Your task to perform on an android device: uninstall "Instagram" Image 0: 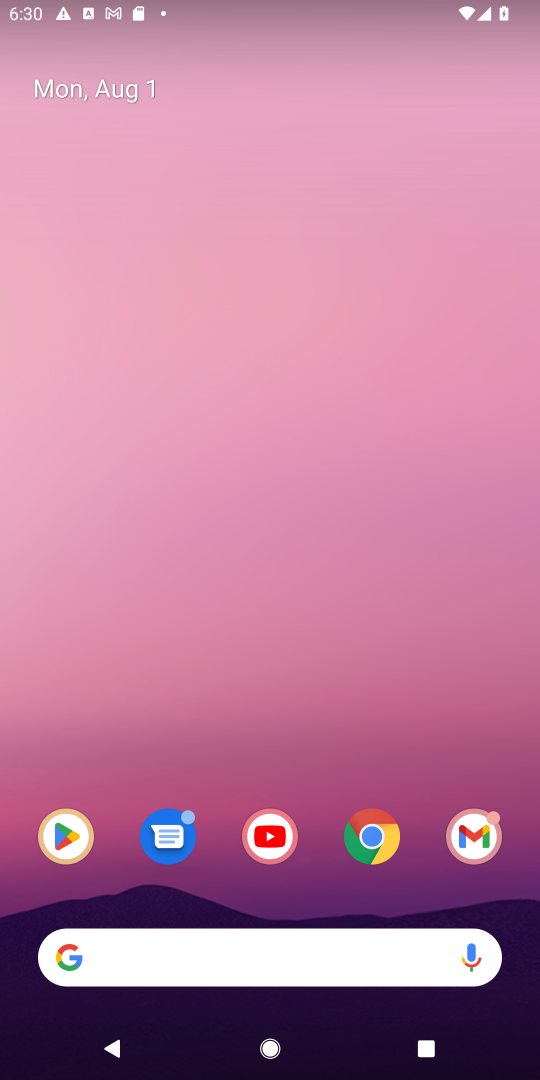
Step 0: press home button
Your task to perform on an android device: uninstall "Instagram" Image 1: 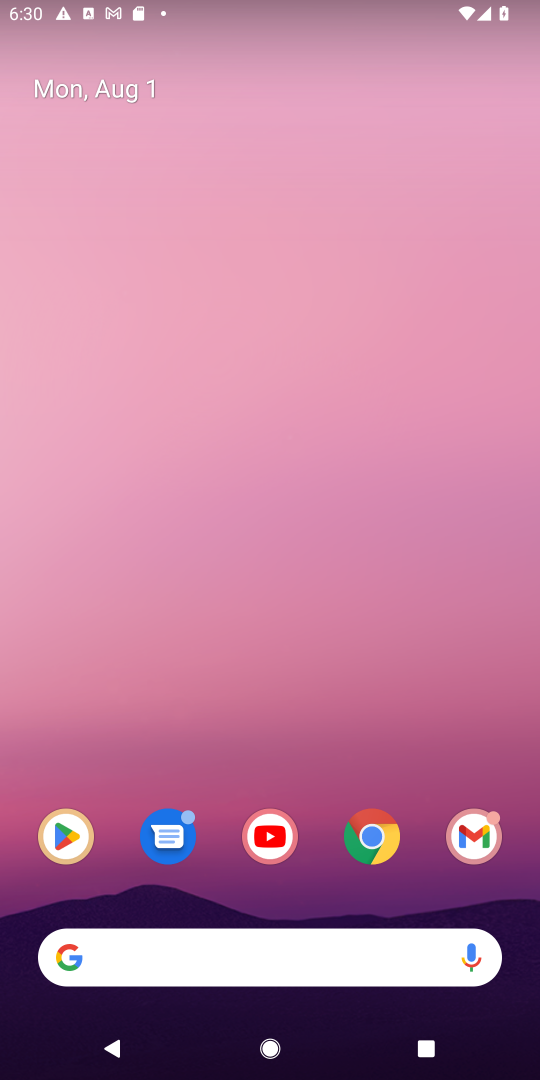
Step 1: click (60, 830)
Your task to perform on an android device: uninstall "Instagram" Image 2: 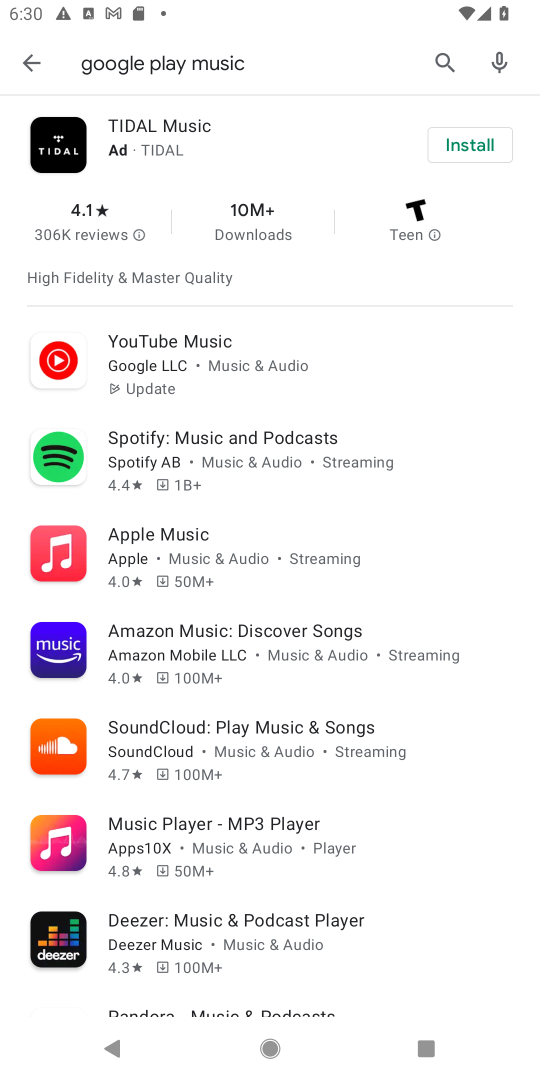
Step 2: click (443, 57)
Your task to perform on an android device: uninstall "Instagram" Image 3: 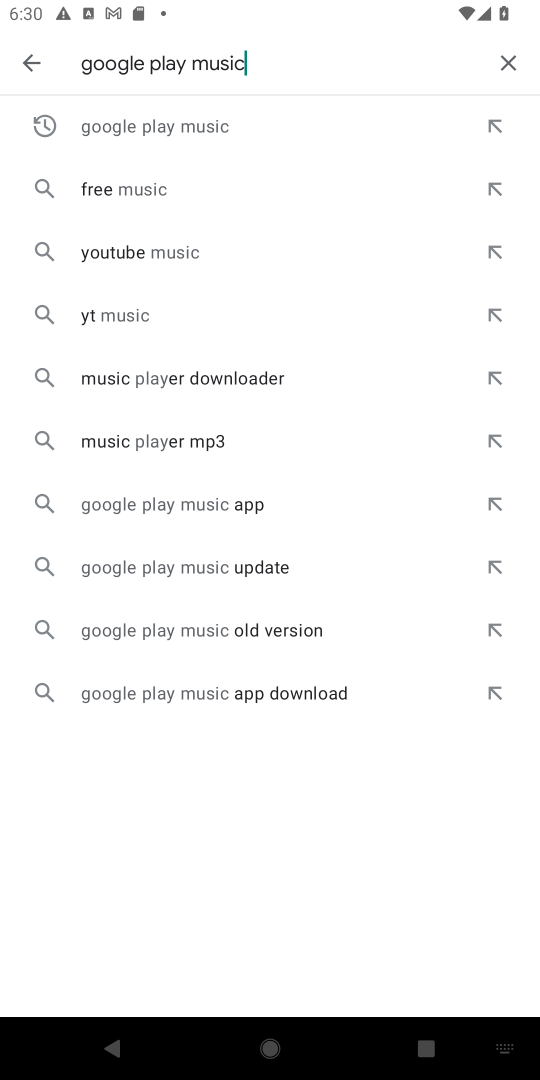
Step 3: click (516, 50)
Your task to perform on an android device: uninstall "Instagram" Image 4: 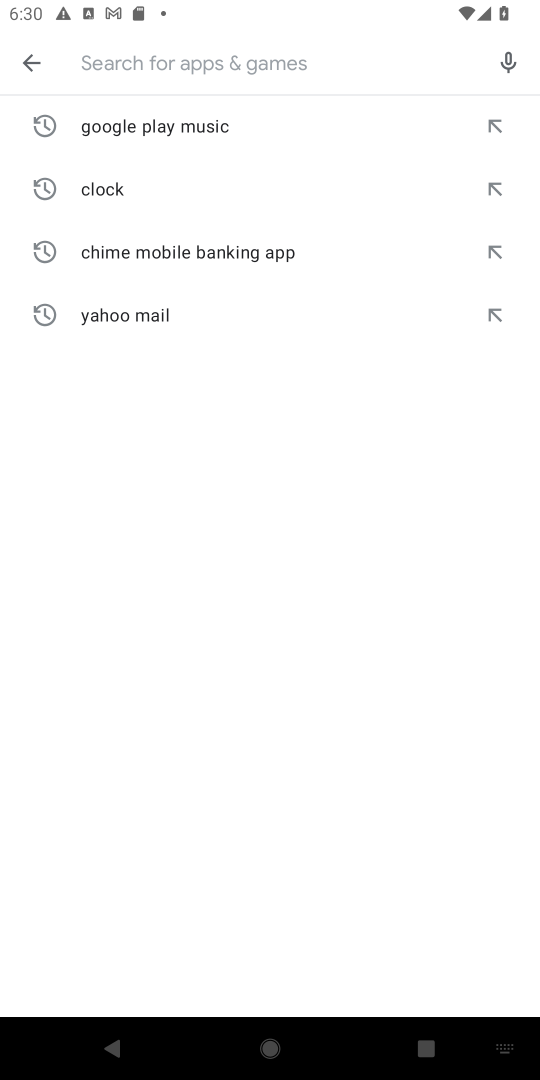
Step 4: type "Instagram"
Your task to perform on an android device: uninstall "Instagram" Image 5: 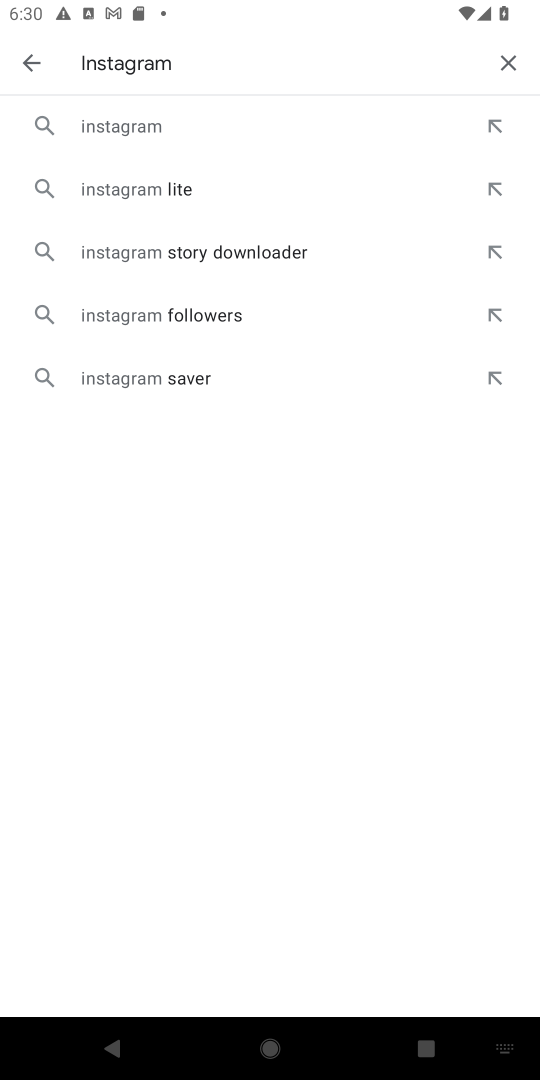
Step 5: click (139, 122)
Your task to perform on an android device: uninstall "Instagram" Image 6: 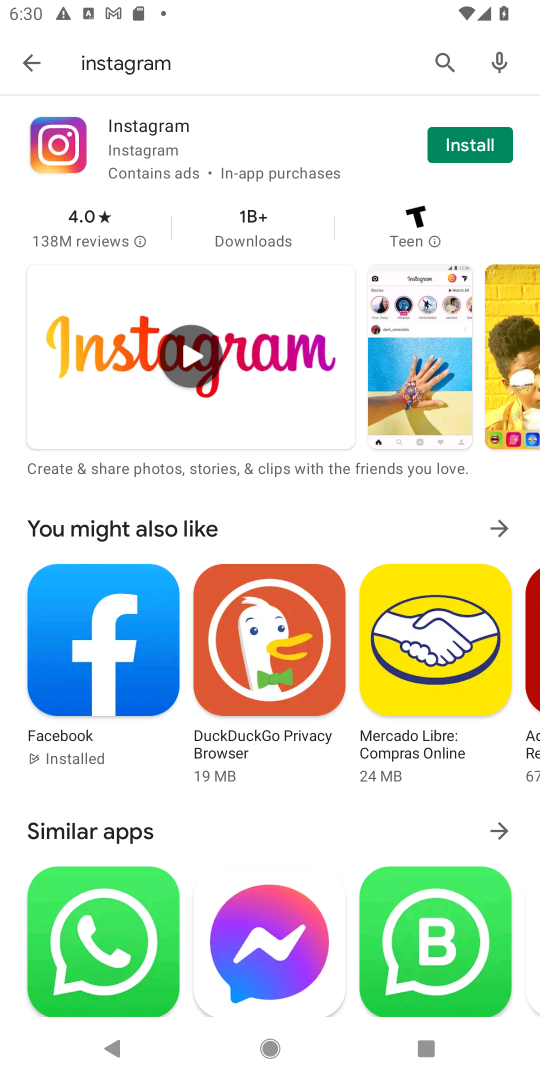
Step 6: task complete